Your task to perform on an android device: turn notification dots off Image 0: 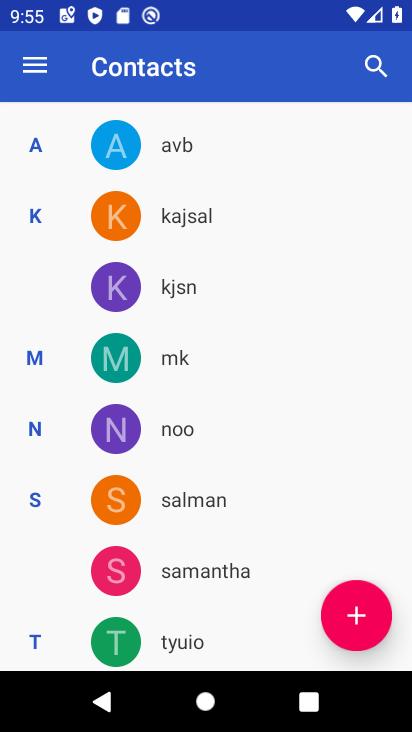
Step 0: press home button
Your task to perform on an android device: turn notification dots off Image 1: 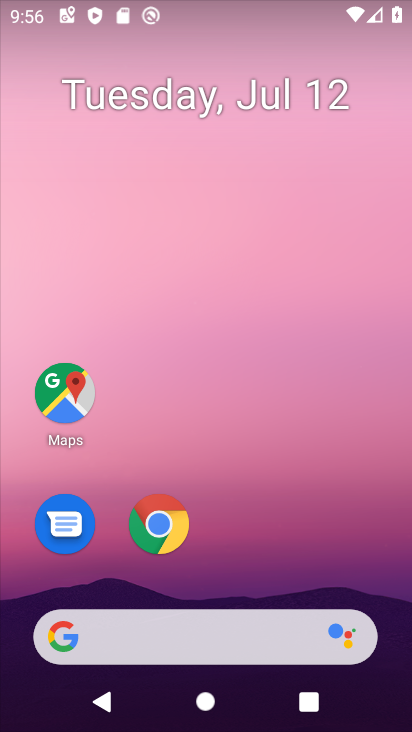
Step 1: drag from (284, 555) to (333, 69)
Your task to perform on an android device: turn notification dots off Image 2: 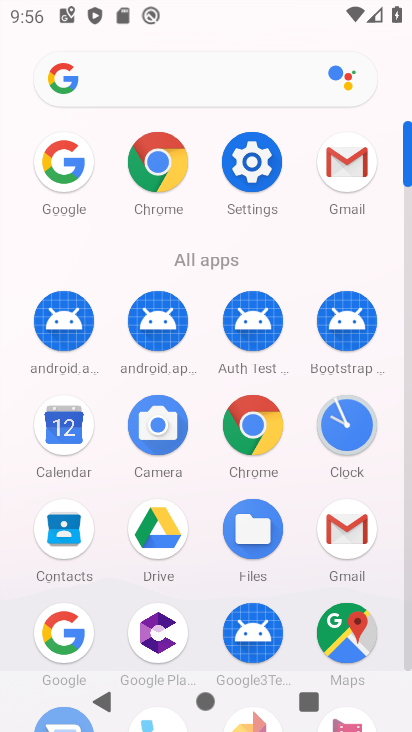
Step 2: click (258, 169)
Your task to perform on an android device: turn notification dots off Image 3: 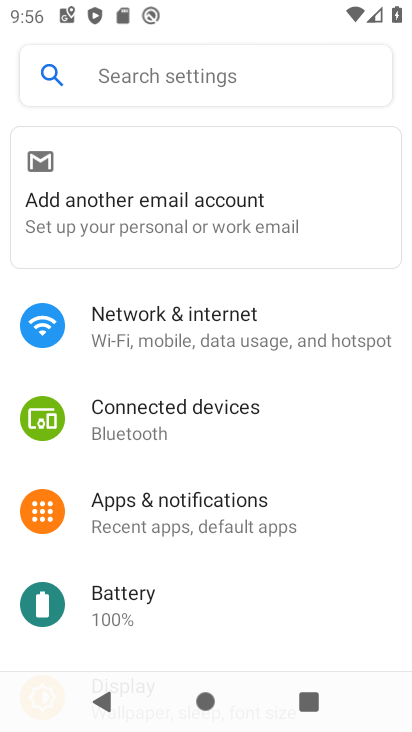
Step 3: click (202, 504)
Your task to perform on an android device: turn notification dots off Image 4: 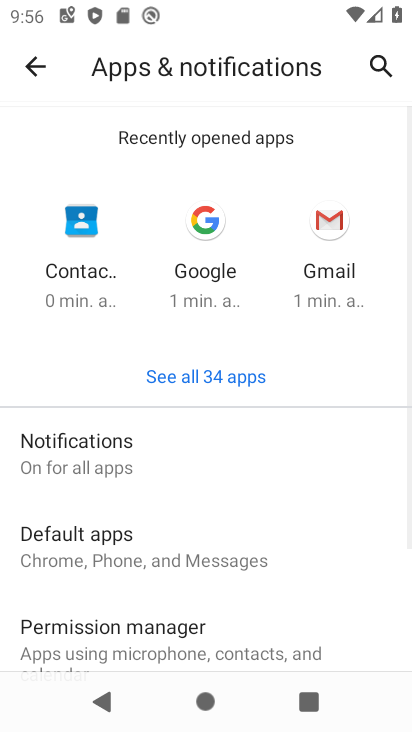
Step 4: click (120, 455)
Your task to perform on an android device: turn notification dots off Image 5: 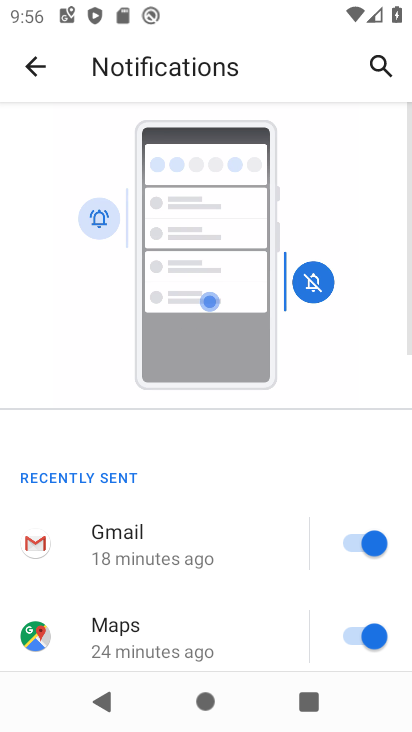
Step 5: drag from (243, 591) to (236, 182)
Your task to perform on an android device: turn notification dots off Image 6: 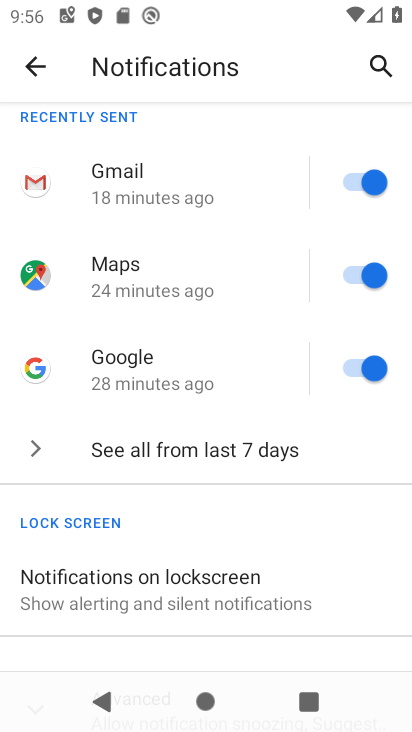
Step 6: drag from (230, 527) to (223, 185)
Your task to perform on an android device: turn notification dots off Image 7: 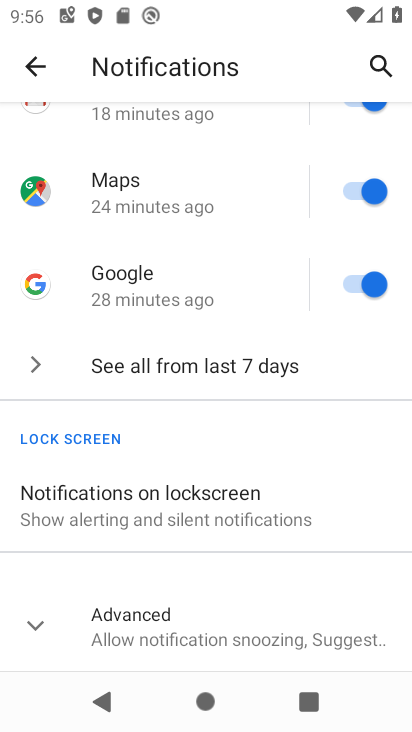
Step 7: click (37, 622)
Your task to perform on an android device: turn notification dots off Image 8: 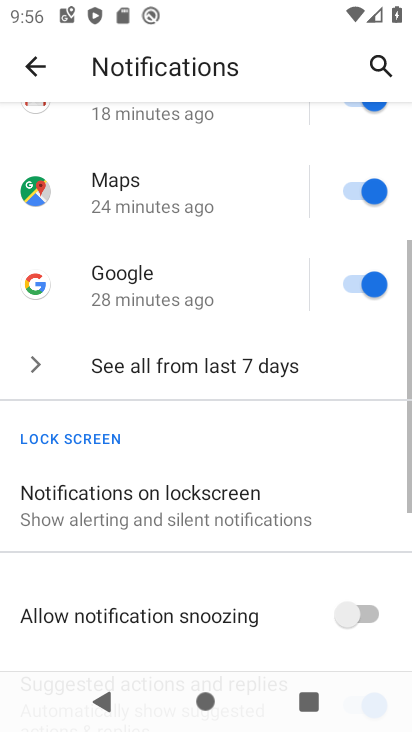
Step 8: drag from (225, 547) to (251, 126)
Your task to perform on an android device: turn notification dots off Image 9: 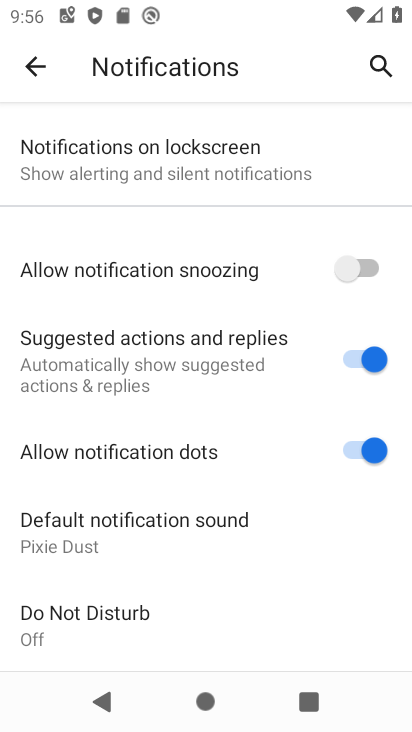
Step 9: click (354, 448)
Your task to perform on an android device: turn notification dots off Image 10: 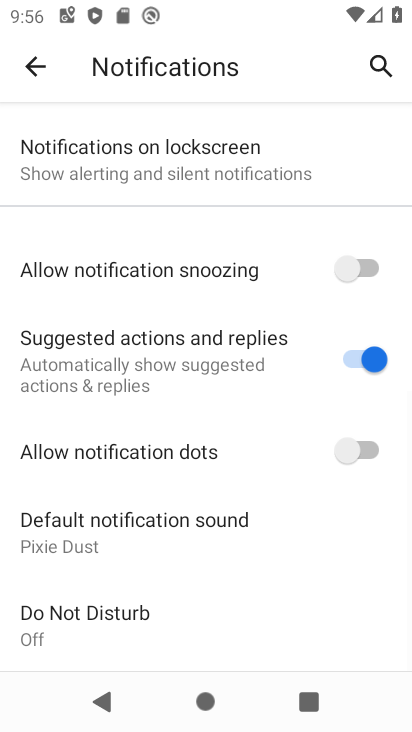
Step 10: task complete